Your task to perform on an android device: turn on location history Image 0: 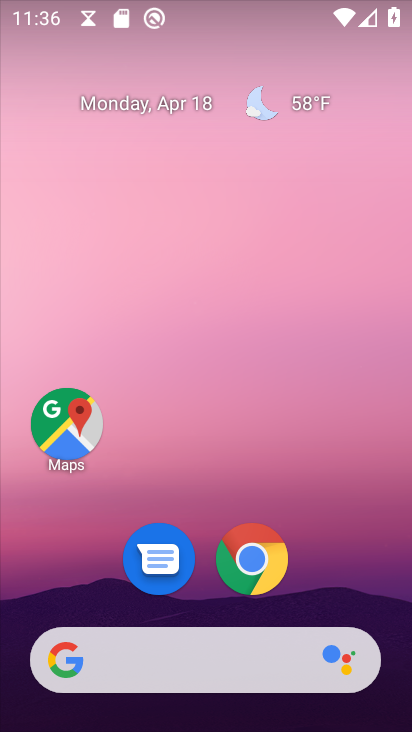
Step 0: drag from (317, 544) to (294, 84)
Your task to perform on an android device: turn on location history Image 1: 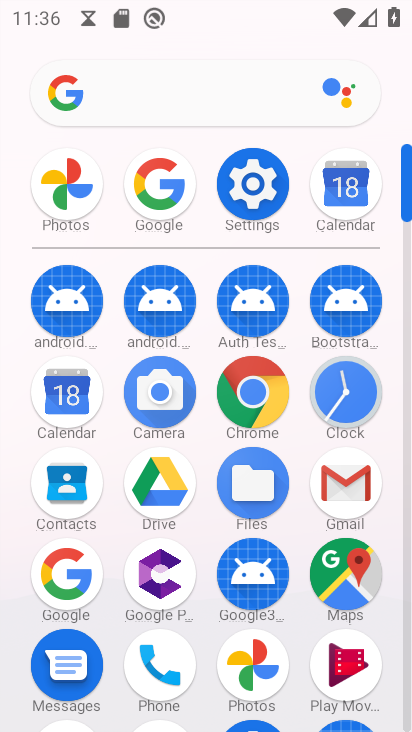
Step 1: click (254, 205)
Your task to perform on an android device: turn on location history Image 2: 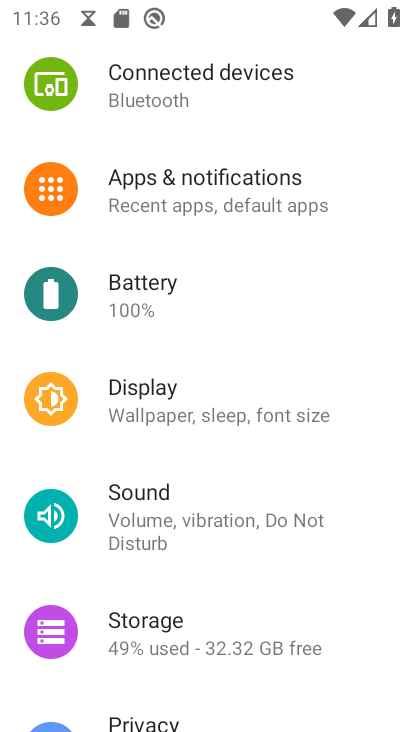
Step 2: drag from (156, 685) to (169, 227)
Your task to perform on an android device: turn on location history Image 3: 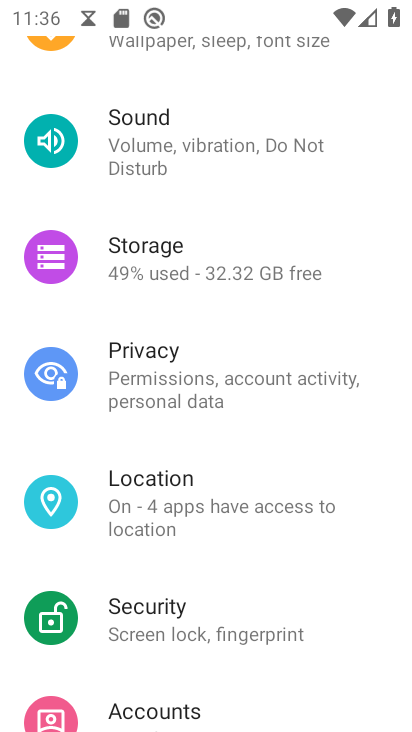
Step 3: click (144, 515)
Your task to perform on an android device: turn on location history Image 4: 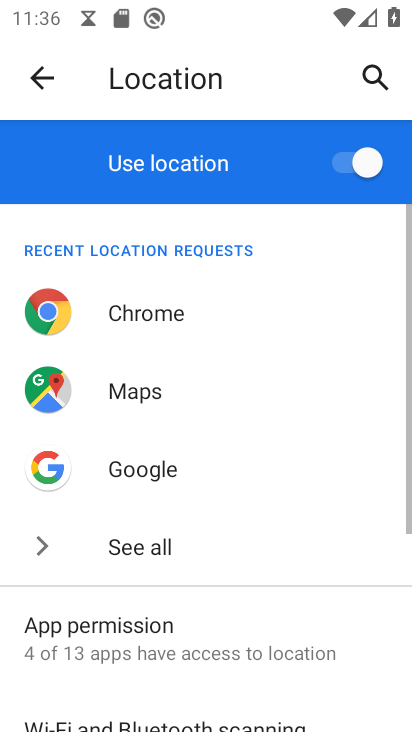
Step 4: drag from (137, 663) to (134, 188)
Your task to perform on an android device: turn on location history Image 5: 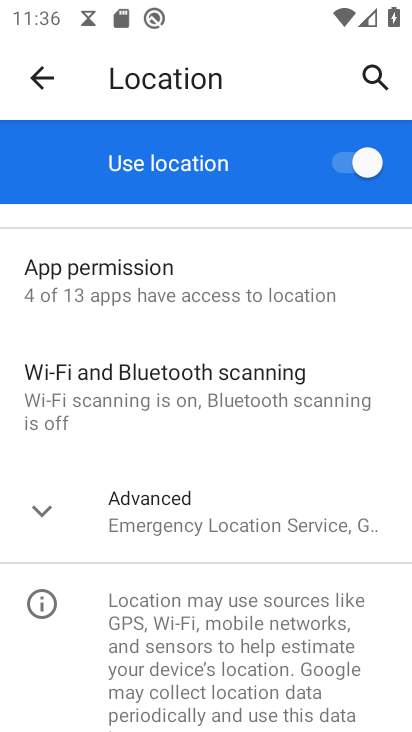
Step 5: click (142, 524)
Your task to perform on an android device: turn on location history Image 6: 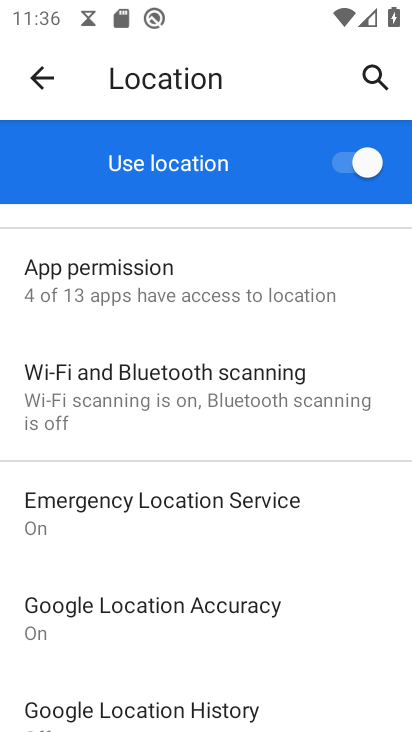
Step 6: click (217, 703)
Your task to perform on an android device: turn on location history Image 7: 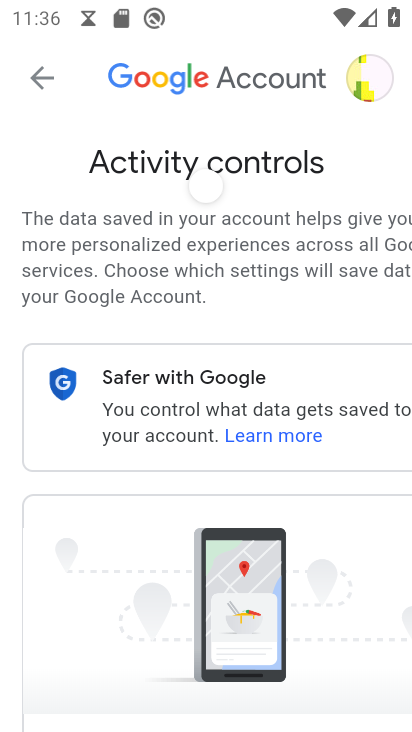
Step 7: drag from (198, 674) to (211, 214)
Your task to perform on an android device: turn on location history Image 8: 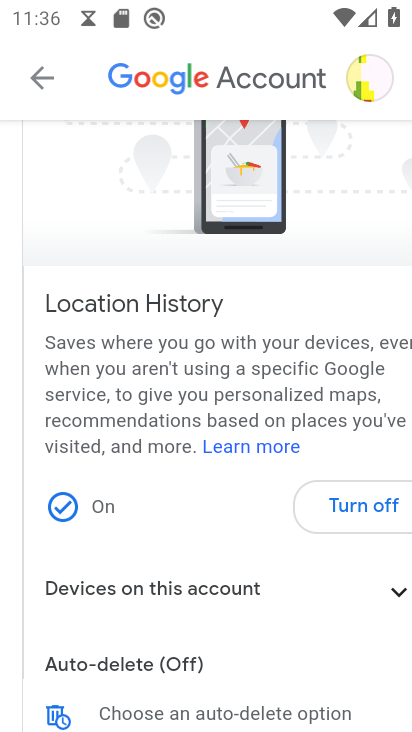
Step 8: click (60, 502)
Your task to perform on an android device: turn on location history Image 9: 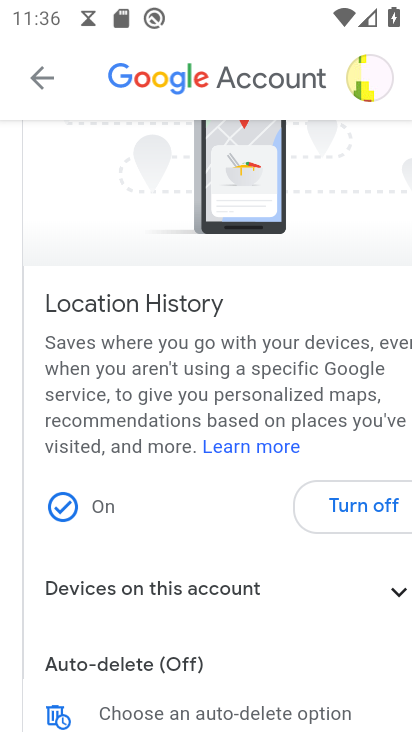
Step 9: click (62, 510)
Your task to perform on an android device: turn on location history Image 10: 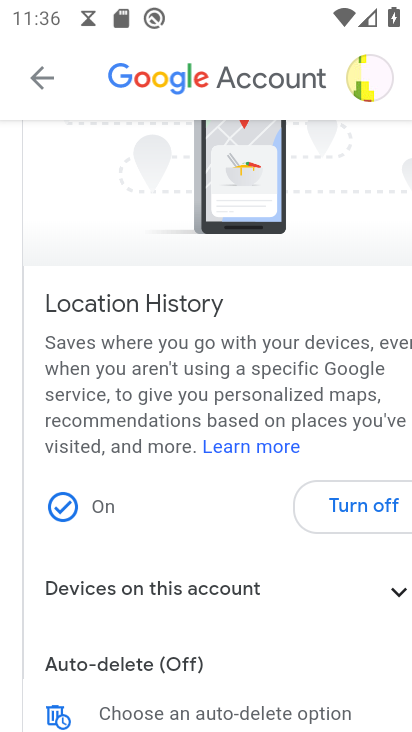
Step 10: click (39, 75)
Your task to perform on an android device: turn on location history Image 11: 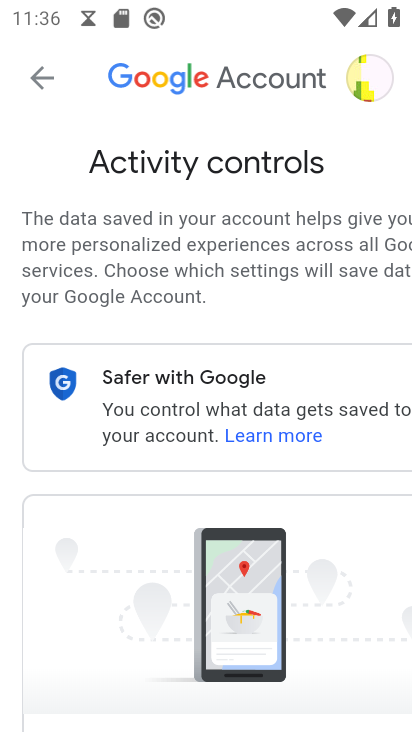
Step 11: press back button
Your task to perform on an android device: turn on location history Image 12: 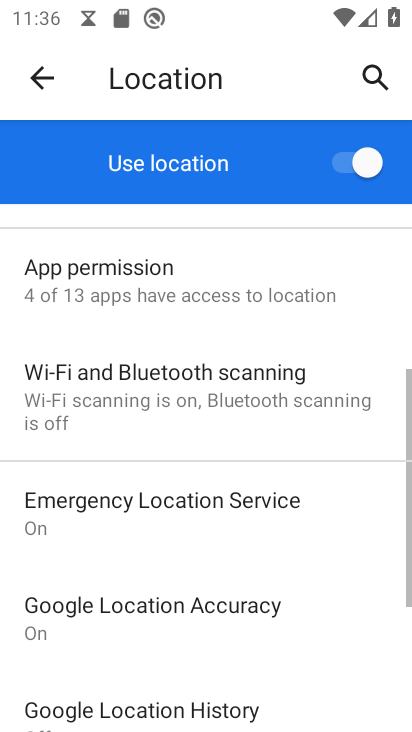
Step 12: drag from (202, 697) to (214, 396)
Your task to perform on an android device: turn on location history Image 13: 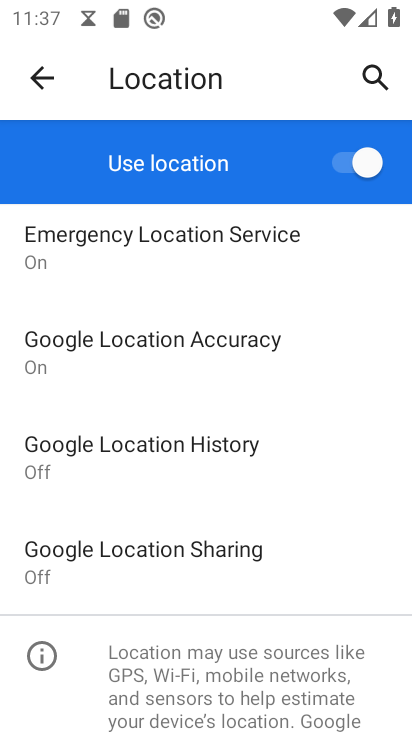
Step 13: click (163, 447)
Your task to perform on an android device: turn on location history Image 14: 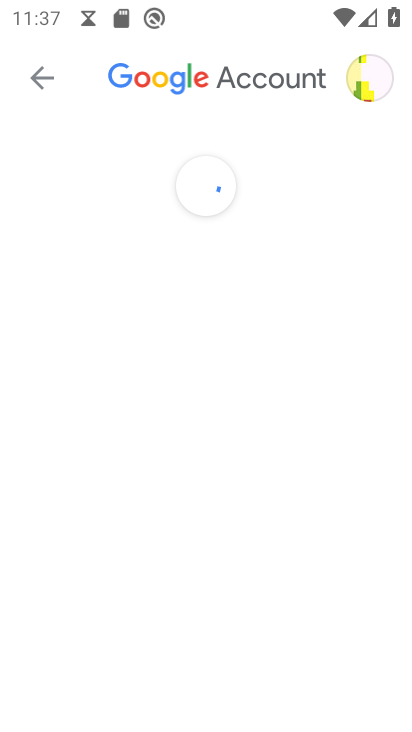
Step 14: drag from (180, 576) to (174, 158)
Your task to perform on an android device: turn on location history Image 15: 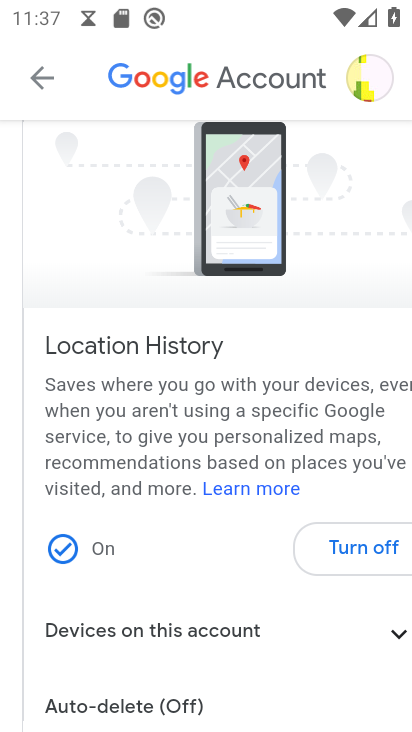
Step 15: click (61, 551)
Your task to perform on an android device: turn on location history Image 16: 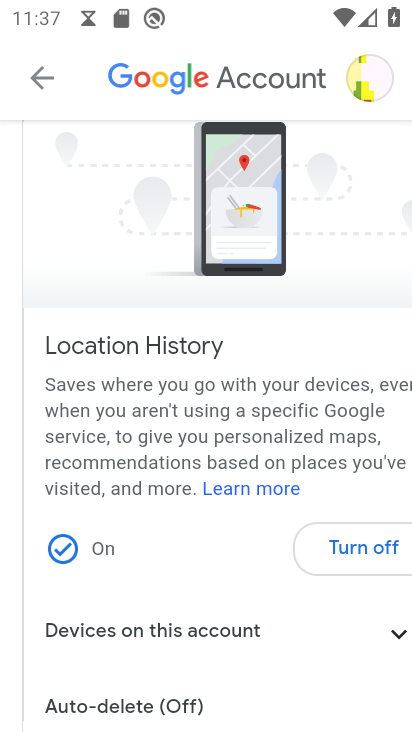
Step 16: click (107, 549)
Your task to perform on an android device: turn on location history Image 17: 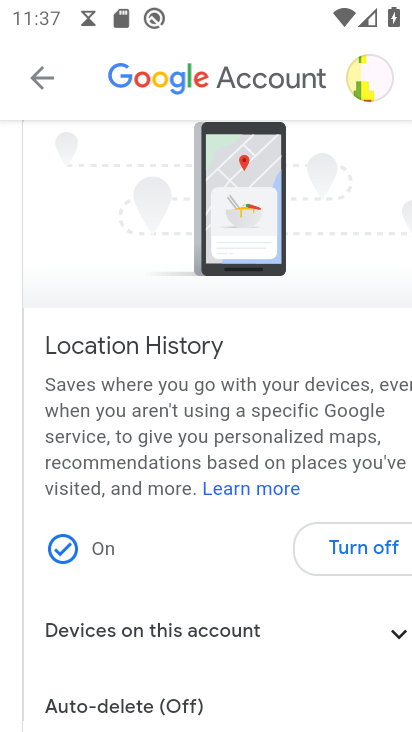
Step 17: click (68, 553)
Your task to perform on an android device: turn on location history Image 18: 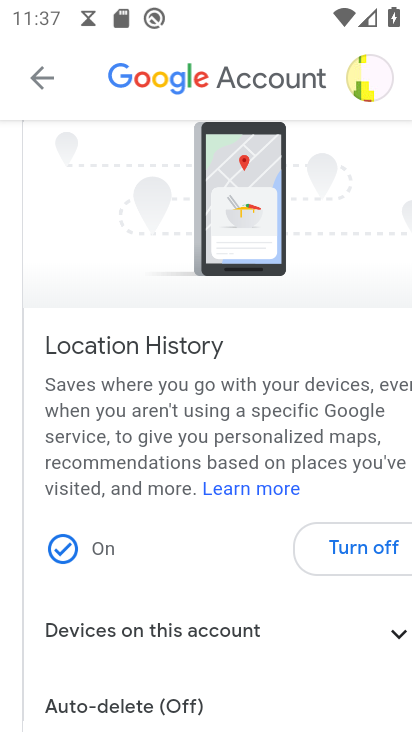
Step 18: click (57, 548)
Your task to perform on an android device: turn on location history Image 19: 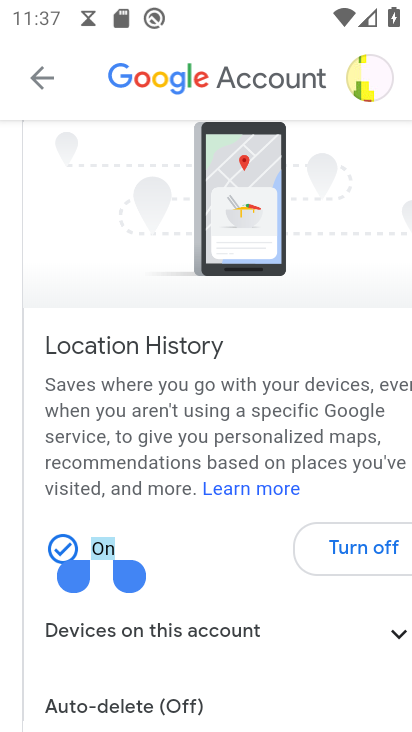
Step 19: drag from (126, 605) to (146, 272)
Your task to perform on an android device: turn on location history Image 20: 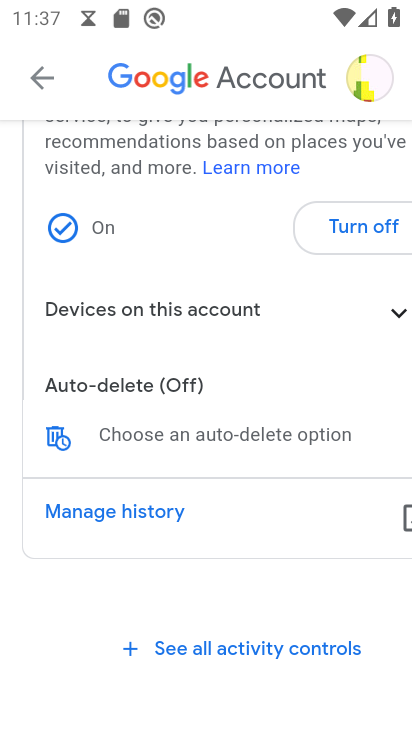
Step 20: click (86, 228)
Your task to perform on an android device: turn on location history Image 21: 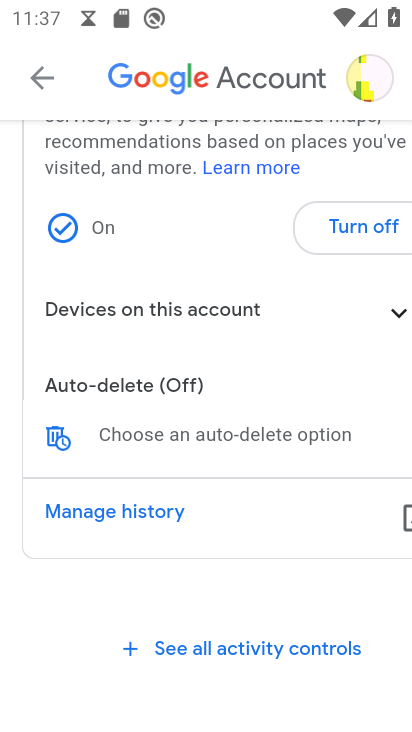
Step 21: click (354, 238)
Your task to perform on an android device: turn on location history Image 22: 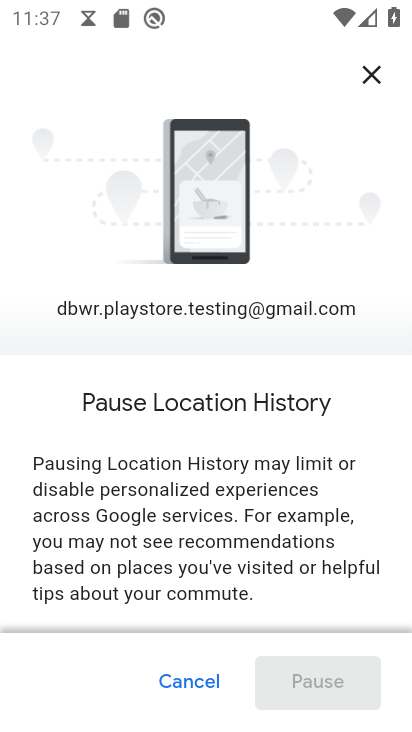
Step 22: drag from (223, 566) to (203, 163)
Your task to perform on an android device: turn on location history Image 23: 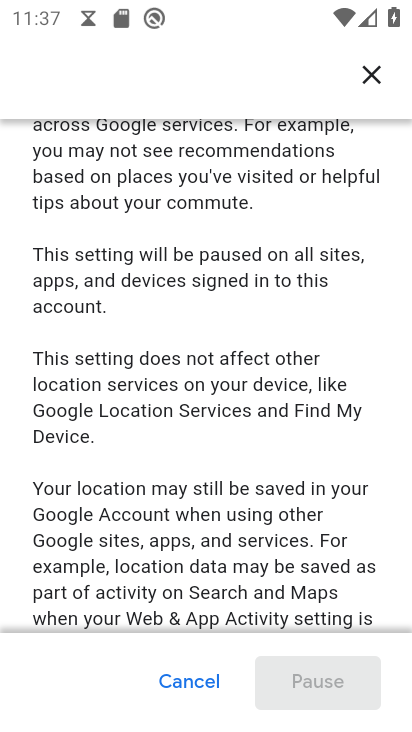
Step 23: drag from (243, 526) to (239, 168)
Your task to perform on an android device: turn on location history Image 24: 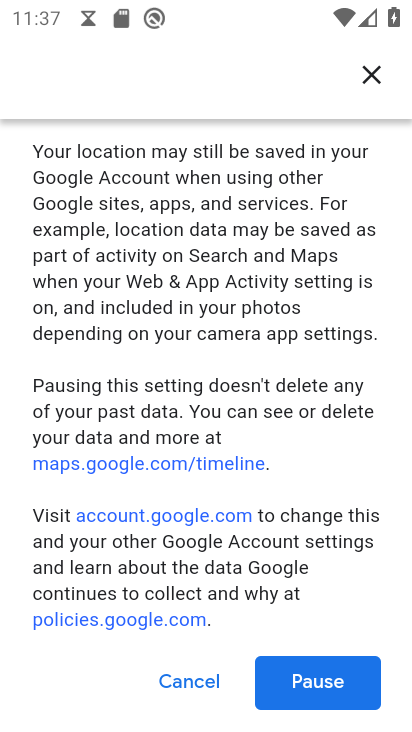
Step 24: click (313, 700)
Your task to perform on an android device: turn on location history Image 25: 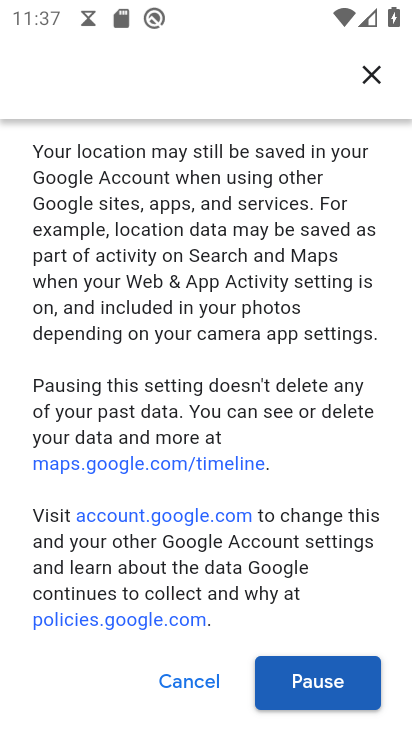
Step 25: click (311, 688)
Your task to perform on an android device: turn on location history Image 26: 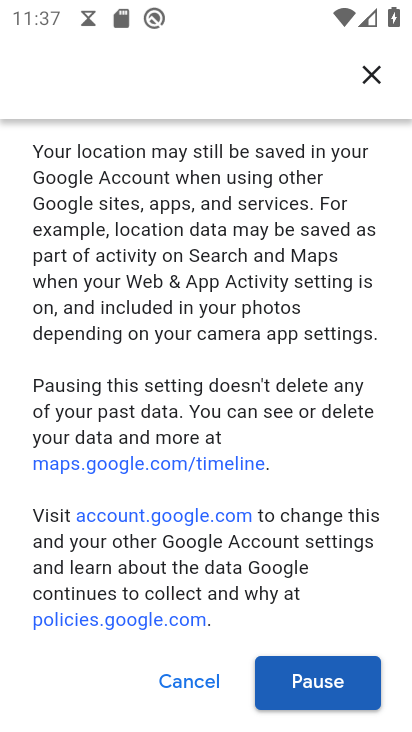
Step 26: click (321, 665)
Your task to perform on an android device: turn on location history Image 27: 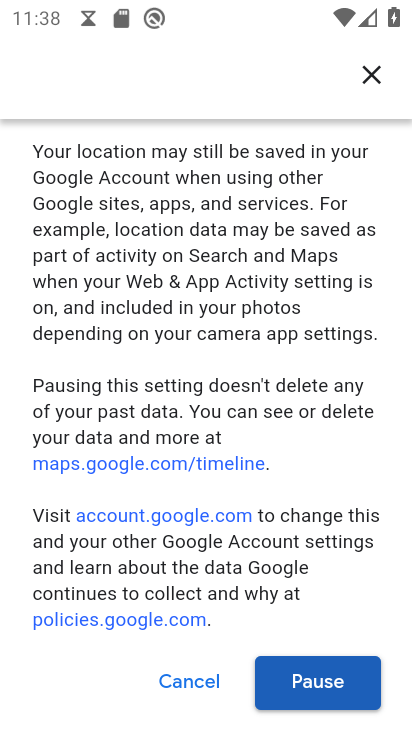
Step 27: click (290, 679)
Your task to perform on an android device: turn on location history Image 28: 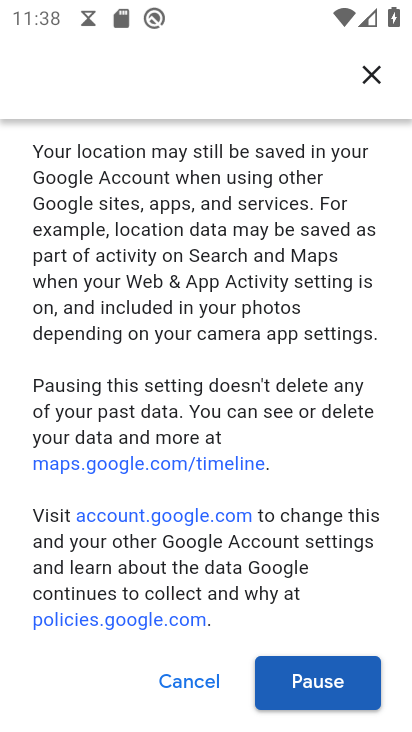
Step 28: click (313, 686)
Your task to perform on an android device: turn on location history Image 29: 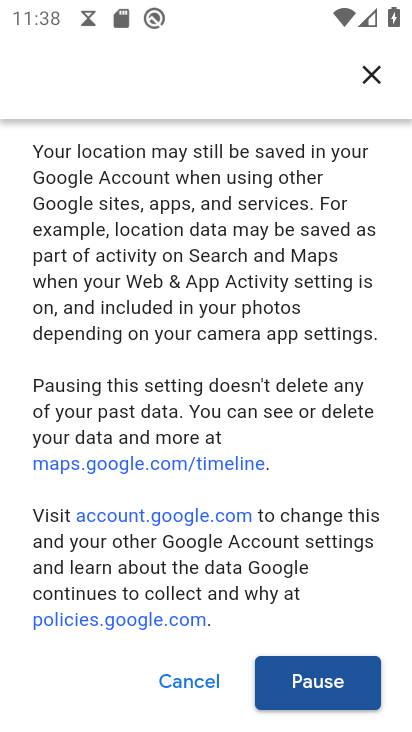
Step 29: drag from (232, 387) to (252, 644)
Your task to perform on an android device: turn on location history Image 30: 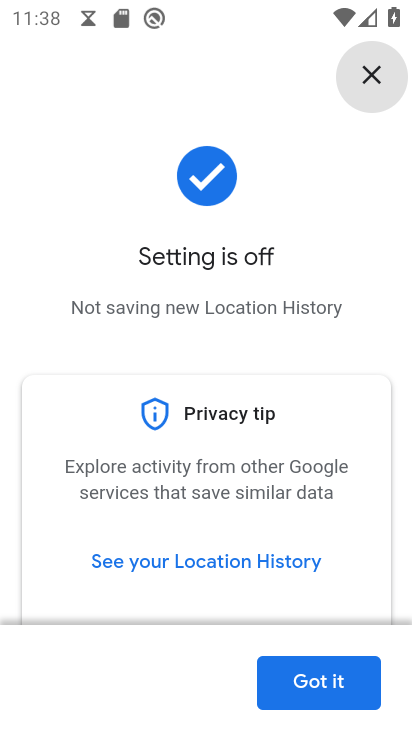
Step 30: click (296, 676)
Your task to perform on an android device: turn on location history Image 31: 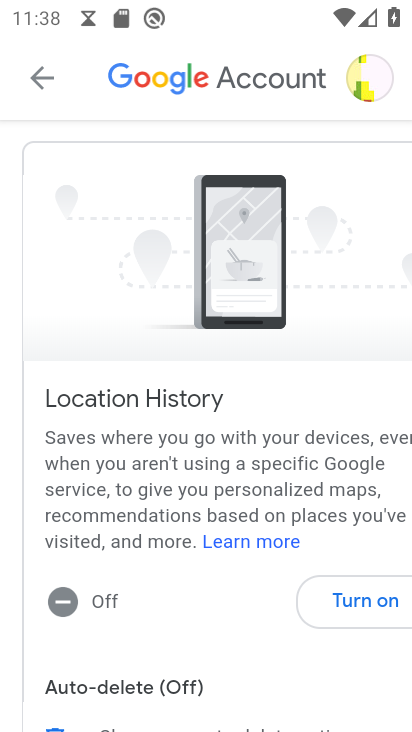
Step 31: click (35, 94)
Your task to perform on an android device: turn on location history Image 32: 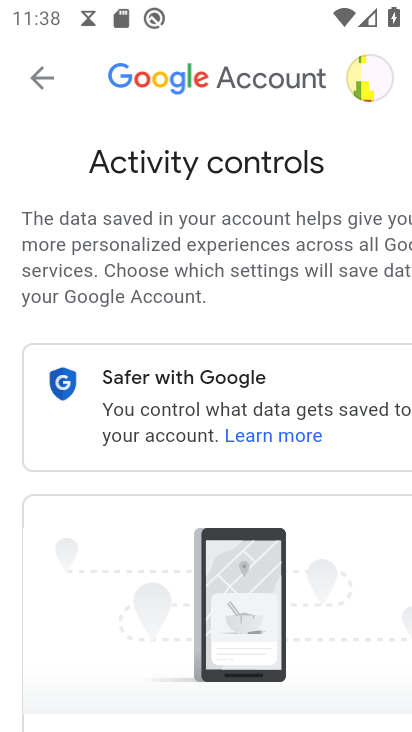
Step 32: press back button
Your task to perform on an android device: turn on location history Image 33: 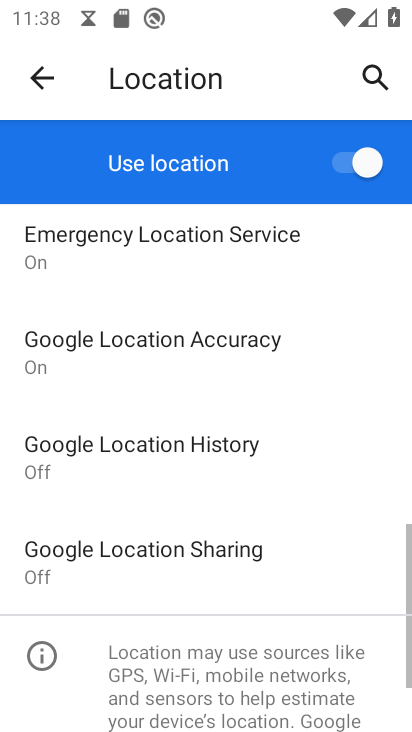
Step 33: click (135, 456)
Your task to perform on an android device: turn on location history Image 34: 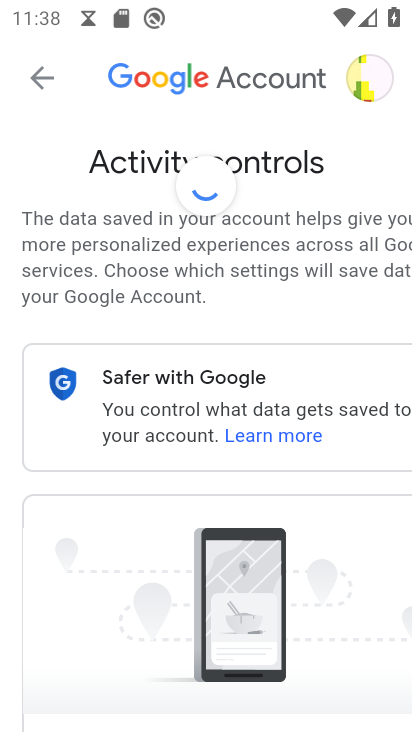
Step 34: drag from (320, 676) to (312, 106)
Your task to perform on an android device: turn on location history Image 35: 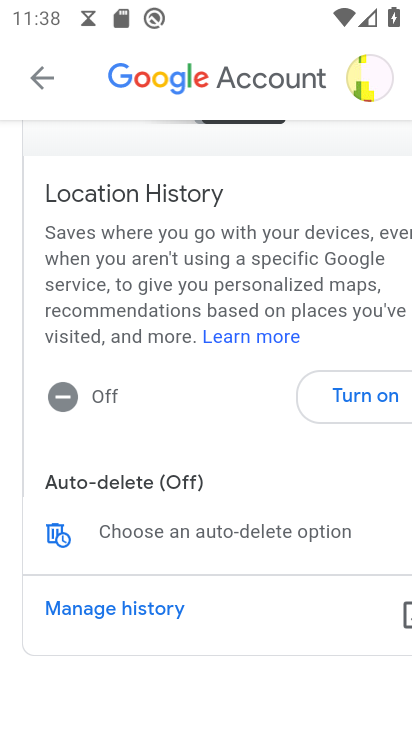
Step 35: click (344, 401)
Your task to perform on an android device: turn on location history Image 36: 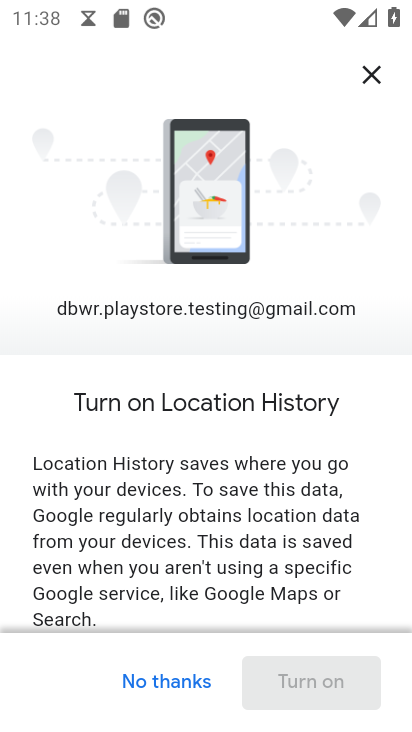
Step 36: drag from (246, 527) to (256, 114)
Your task to perform on an android device: turn on location history Image 37: 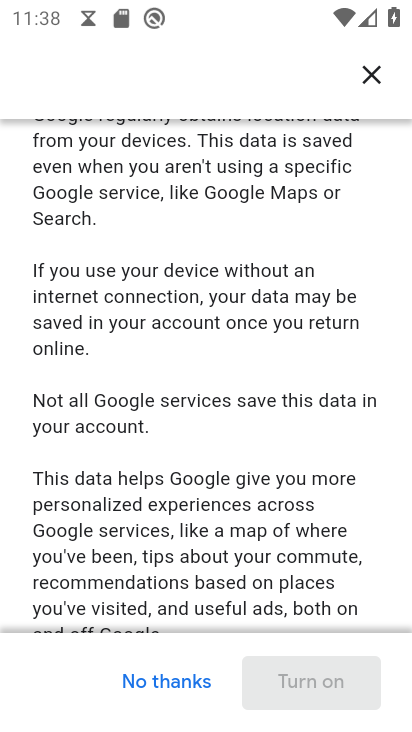
Step 37: drag from (215, 570) to (182, 118)
Your task to perform on an android device: turn on location history Image 38: 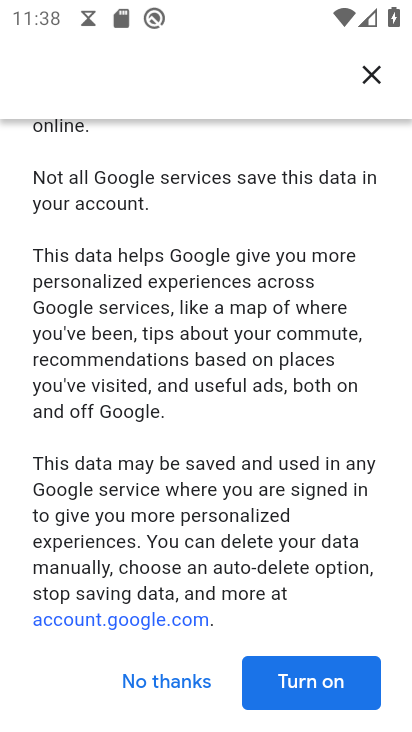
Step 38: click (287, 687)
Your task to perform on an android device: turn on location history Image 39: 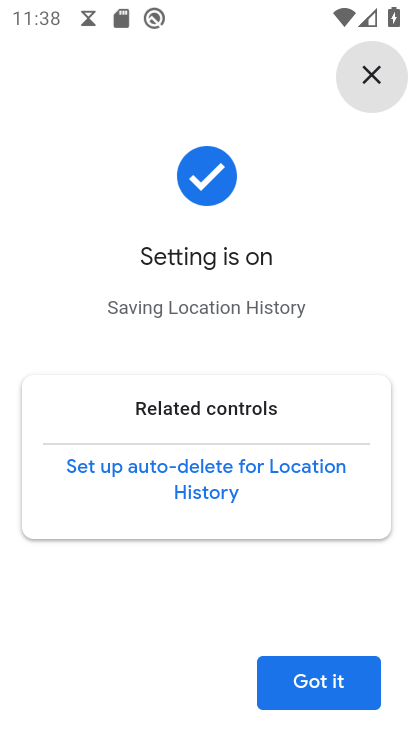
Step 39: click (287, 687)
Your task to perform on an android device: turn on location history Image 40: 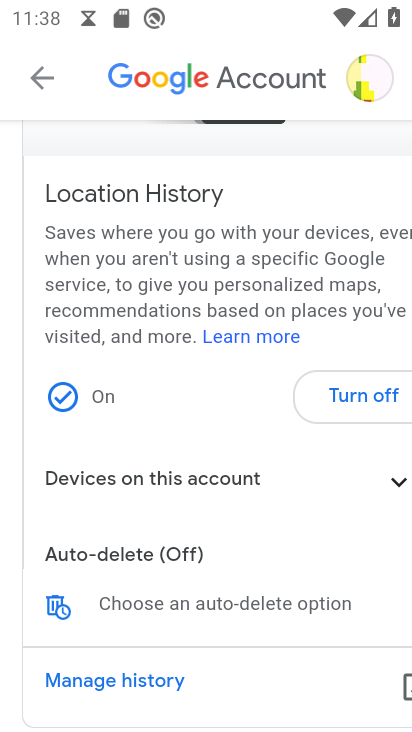
Step 40: task complete